Your task to perform on an android device: Open Yahoo.com Image 0: 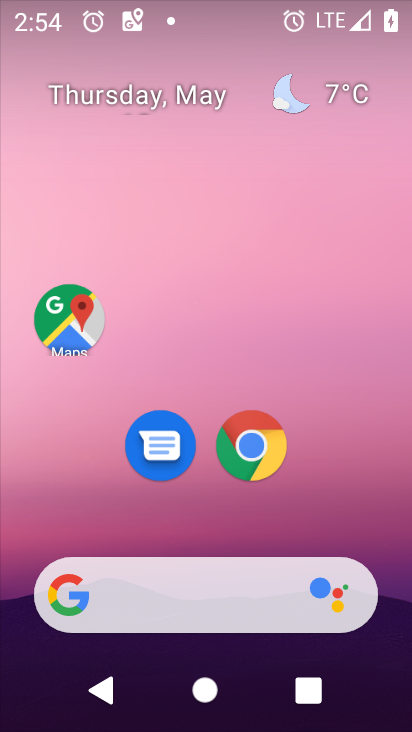
Step 0: click (252, 463)
Your task to perform on an android device: Open Yahoo.com Image 1: 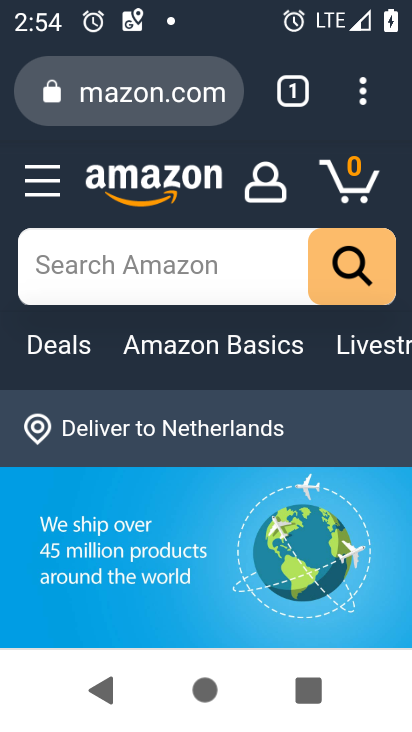
Step 1: click (147, 100)
Your task to perform on an android device: Open Yahoo.com Image 2: 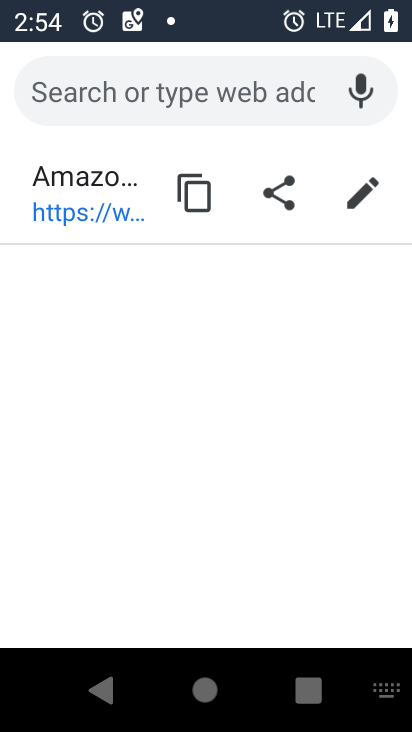
Step 2: type "yahoo.com"
Your task to perform on an android device: Open Yahoo.com Image 3: 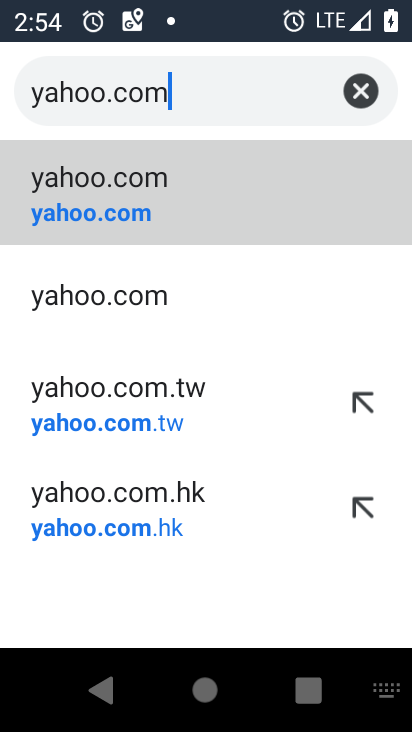
Step 3: click (56, 222)
Your task to perform on an android device: Open Yahoo.com Image 4: 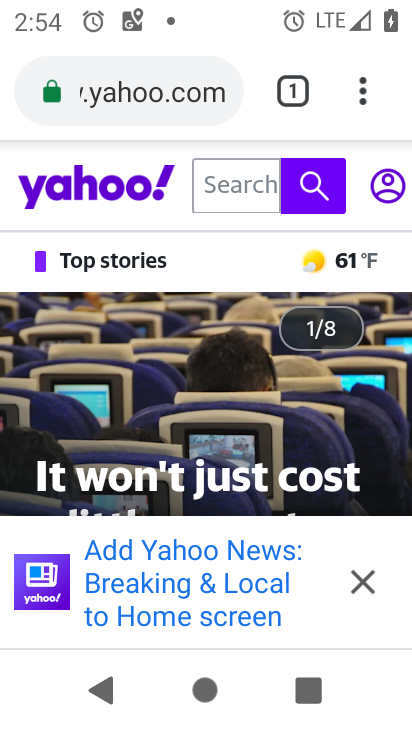
Step 4: task complete